Your task to perform on an android device: Show me popular videos on Youtube Image 0: 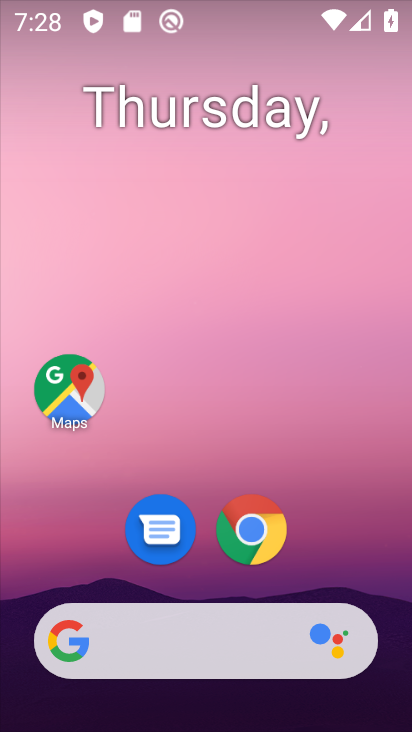
Step 0: drag from (378, 576) to (378, 169)
Your task to perform on an android device: Show me popular videos on Youtube Image 1: 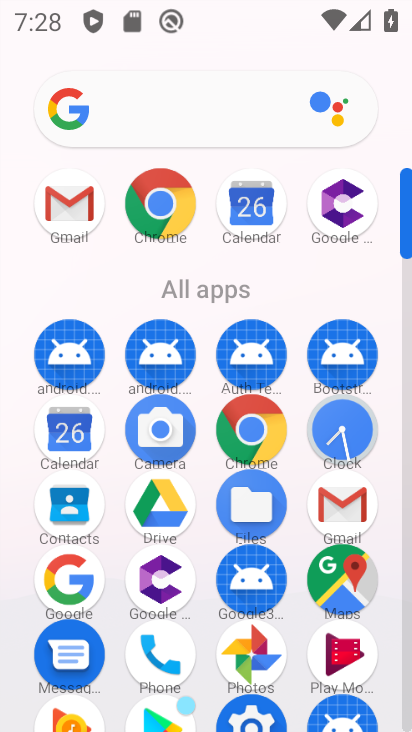
Step 1: drag from (393, 629) to (393, 405)
Your task to perform on an android device: Show me popular videos on Youtube Image 2: 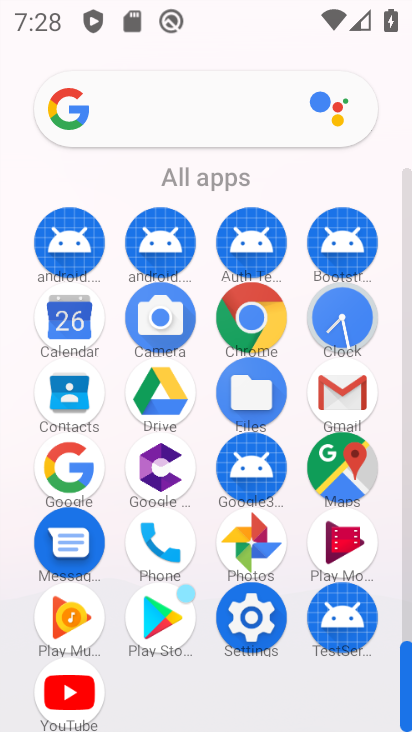
Step 2: click (57, 698)
Your task to perform on an android device: Show me popular videos on Youtube Image 3: 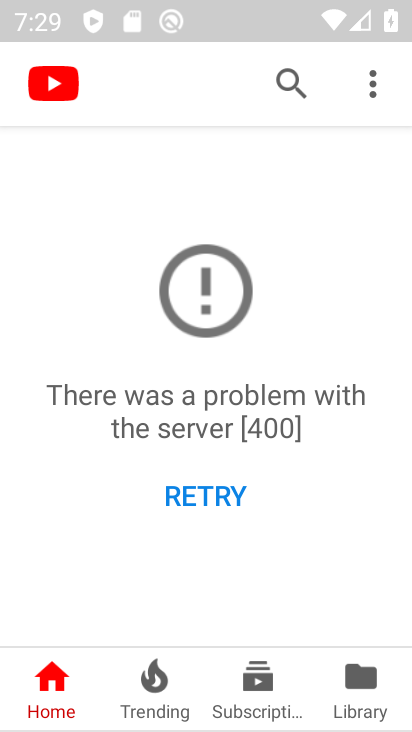
Step 3: task complete